Your task to perform on an android device: turn off smart reply in the gmail app Image 0: 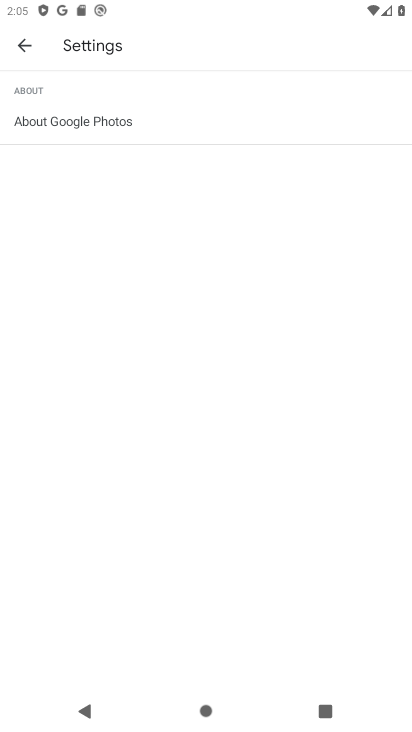
Step 0: press home button
Your task to perform on an android device: turn off smart reply in the gmail app Image 1: 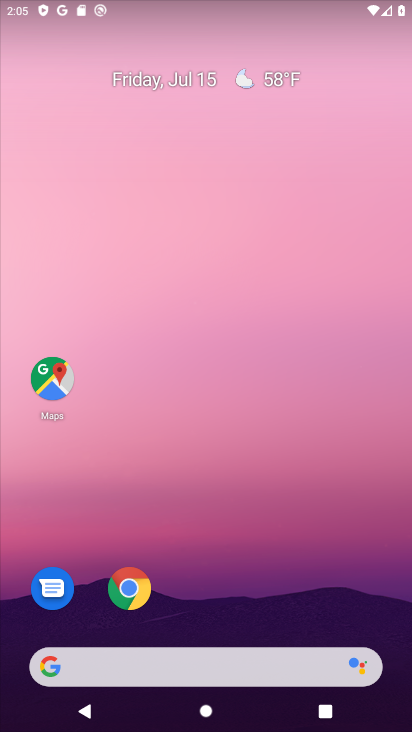
Step 1: drag from (248, 534) to (209, 141)
Your task to perform on an android device: turn off smart reply in the gmail app Image 2: 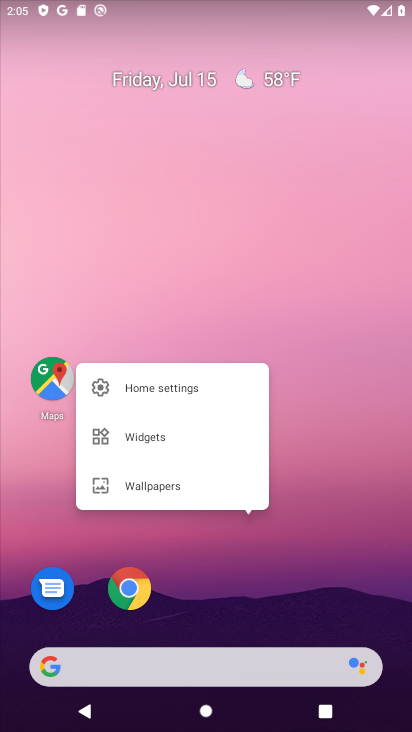
Step 2: click (284, 549)
Your task to perform on an android device: turn off smart reply in the gmail app Image 3: 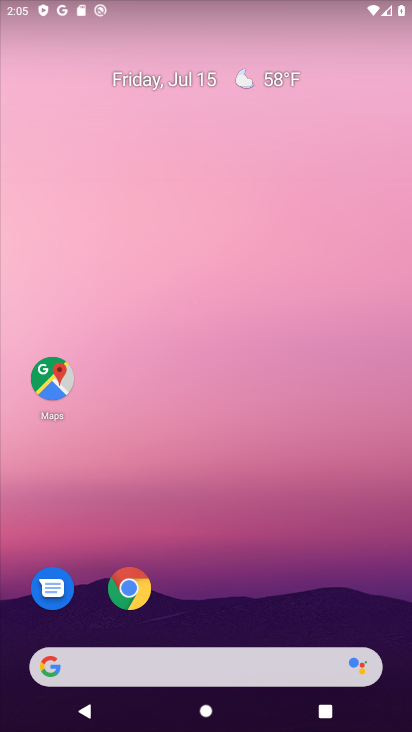
Step 3: drag from (284, 549) to (264, 115)
Your task to perform on an android device: turn off smart reply in the gmail app Image 4: 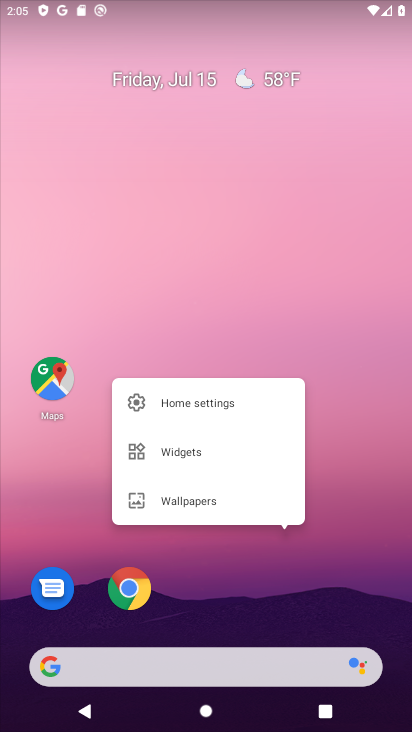
Step 4: click (394, 510)
Your task to perform on an android device: turn off smart reply in the gmail app Image 5: 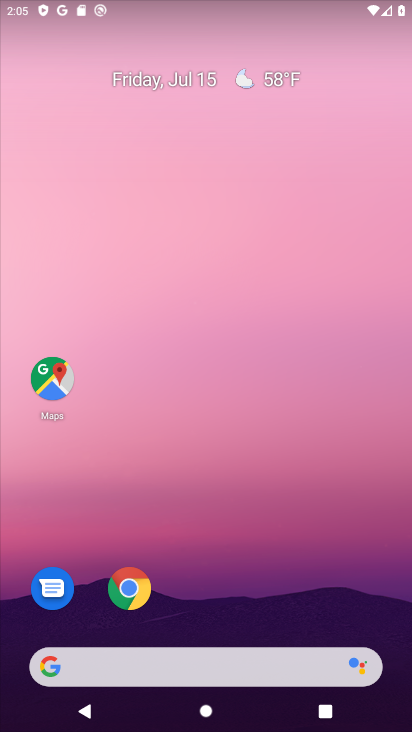
Step 5: drag from (210, 607) to (195, 254)
Your task to perform on an android device: turn off smart reply in the gmail app Image 6: 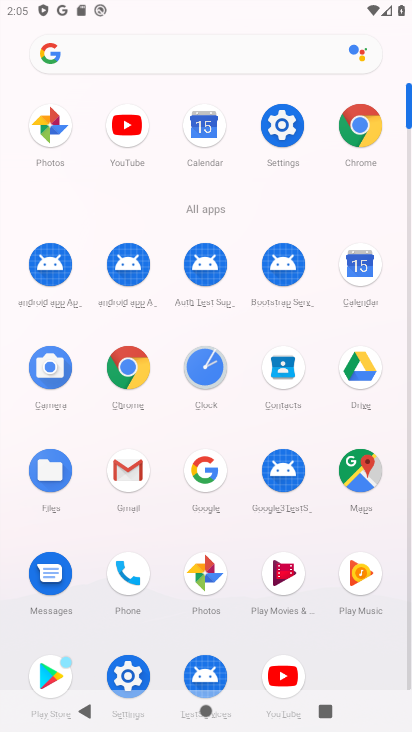
Step 6: click (120, 466)
Your task to perform on an android device: turn off smart reply in the gmail app Image 7: 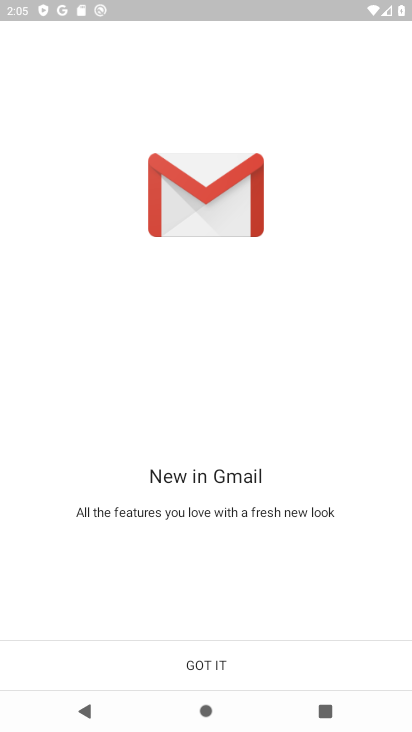
Step 7: click (213, 648)
Your task to perform on an android device: turn off smart reply in the gmail app Image 8: 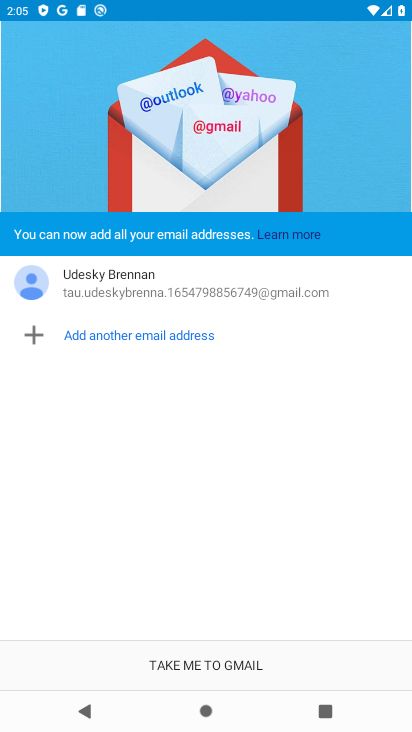
Step 8: click (213, 648)
Your task to perform on an android device: turn off smart reply in the gmail app Image 9: 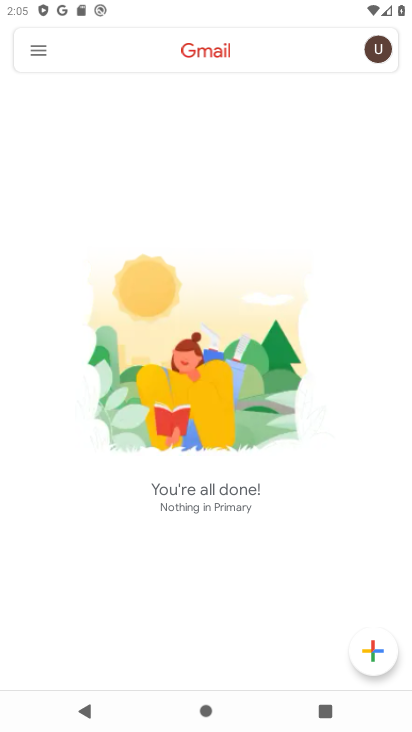
Step 9: click (51, 66)
Your task to perform on an android device: turn off smart reply in the gmail app Image 10: 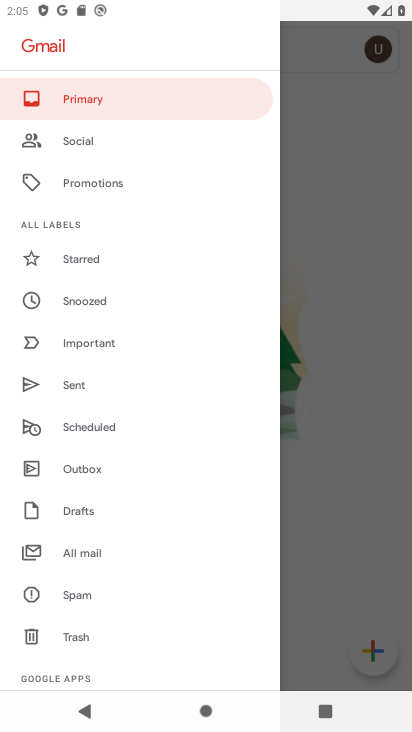
Step 10: drag from (58, 520) to (146, 143)
Your task to perform on an android device: turn off smart reply in the gmail app Image 11: 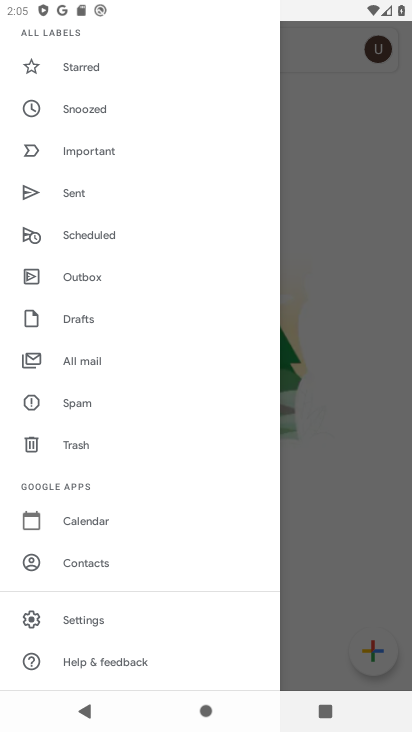
Step 11: click (96, 621)
Your task to perform on an android device: turn off smart reply in the gmail app Image 12: 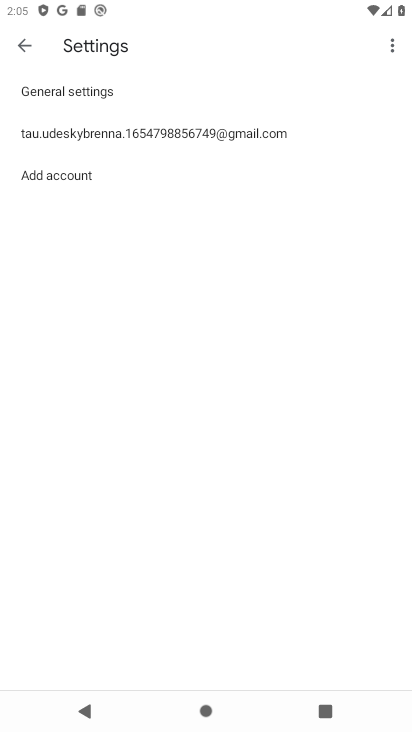
Step 12: click (34, 132)
Your task to perform on an android device: turn off smart reply in the gmail app Image 13: 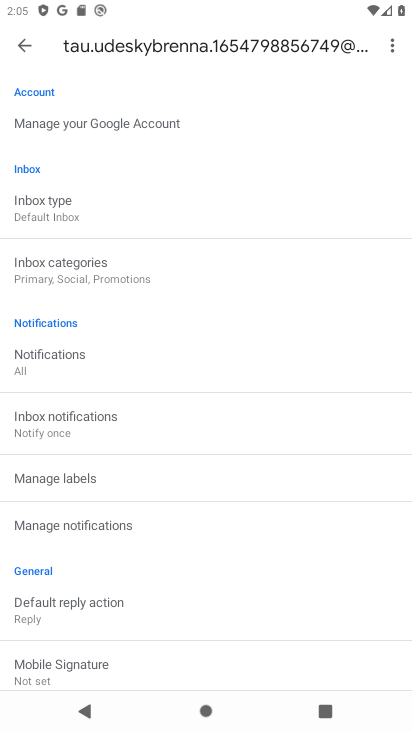
Step 13: drag from (89, 611) to (97, 308)
Your task to perform on an android device: turn off smart reply in the gmail app Image 14: 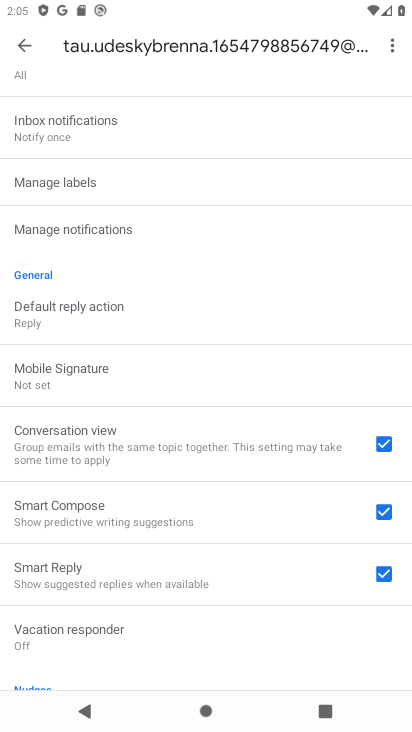
Step 14: click (394, 579)
Your task to perform on an android device: turn off smart reply in the gmail app Image 15: 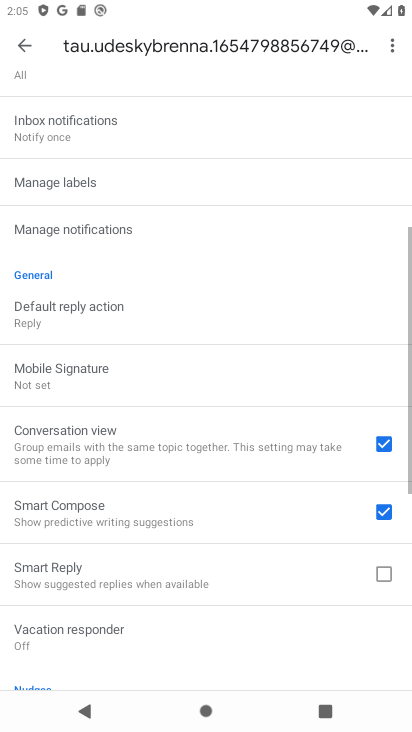
Step 15: task complete